Your task to perform on an android device: Go to Yahoo.com Image 0: 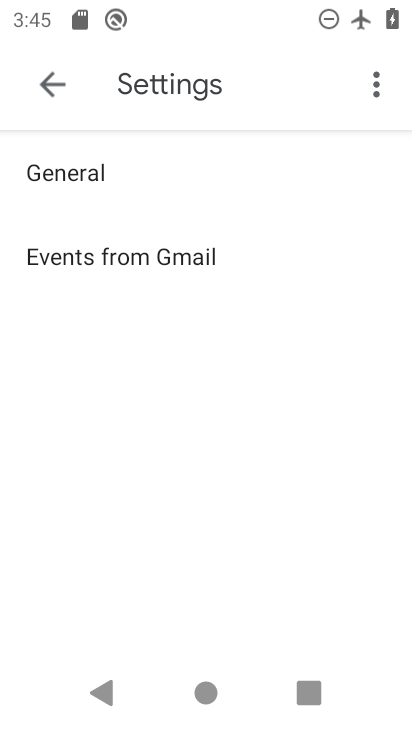
Step 0: press home button
Your task to perform on an android device: Go to Yahoo.com Image 1: 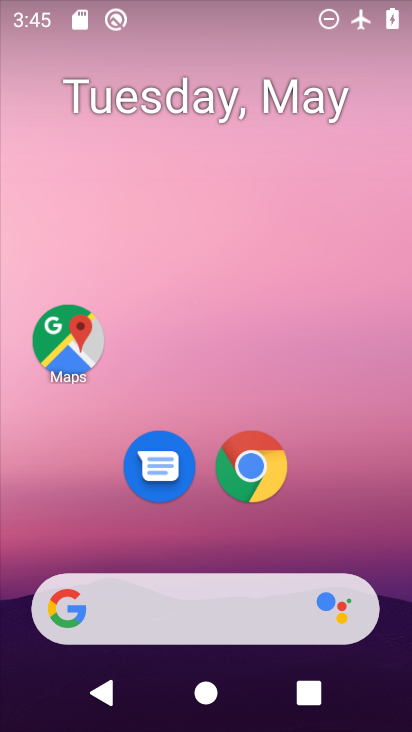
Step 1: click (259, 501)
Your task to perform on an android device: Go to Yahoo.com Image 2: 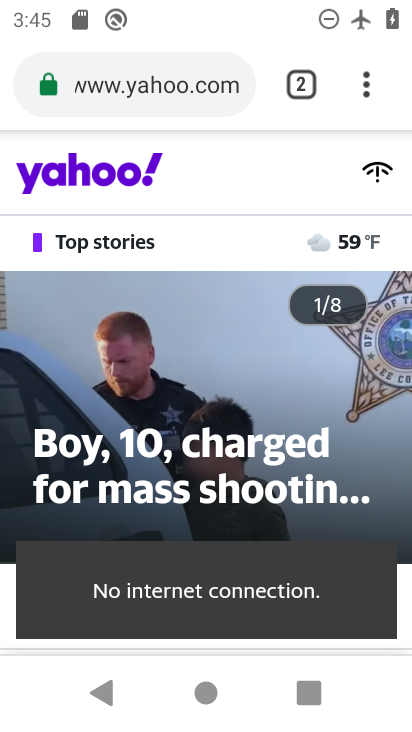
Step 2: drag from (382, 2) to (240, 708)
Your task to perform on an android device: Go to Yahoo.com Image 3: 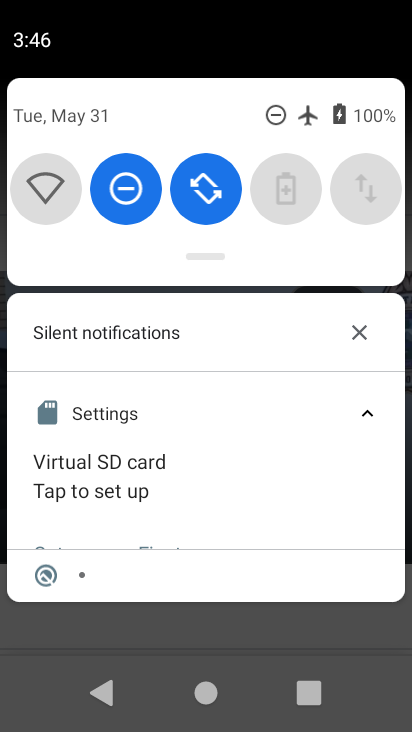
Step 3: drag from (215, 237) to (200, 652)
Your task to perform on an android device: Go to Yahoo.com Image 4: 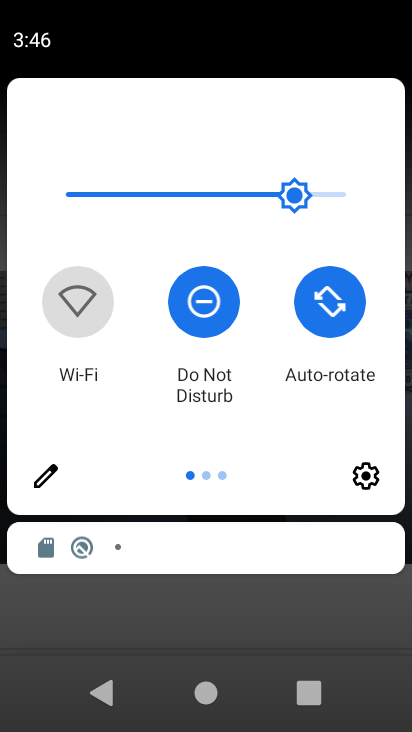
Step 4: drag from (389, 342) to (85, 293)
Your task to perform on an android device: Go to Yahoo.com Image 5: 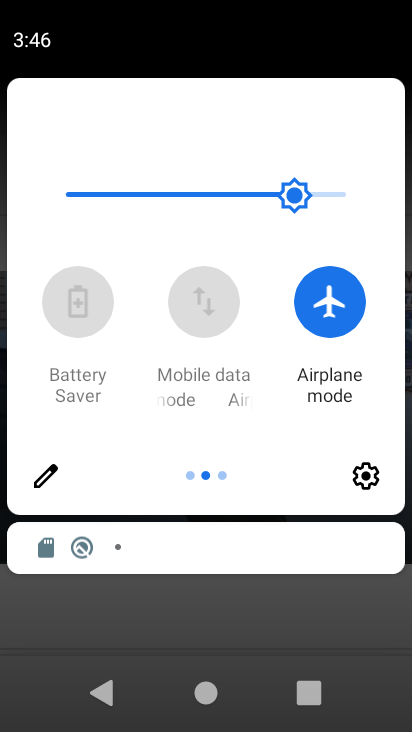
Step 5: click (348, 318)
Your task to perform on an android device: Go to Yahoo.com Image 6: 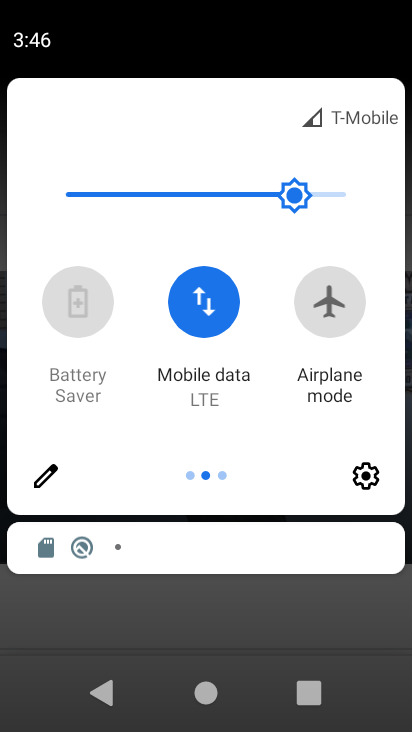
Step 6: task complete